Your task to perform on an android device: Search for flights from Sydney to Zurich Image 0: 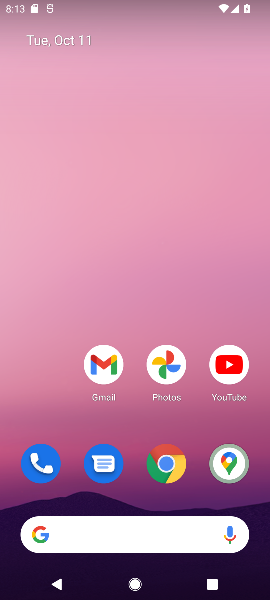
Step 0: drag from (114, 486) to (125, 154)
Your task to perform on an android device: Search for flights from Sydney to Zurich Image 1: 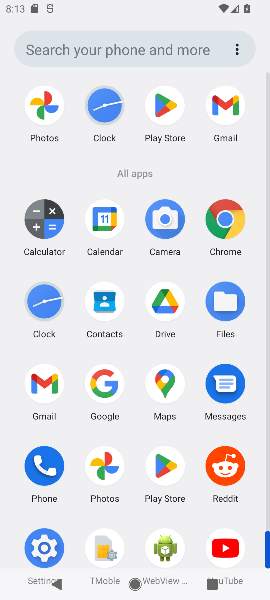
Step 1: drag from (71, 466) to (83, 150)
Your task to perform on an android device: Search for flights from Sydney to Zurich Image 2: 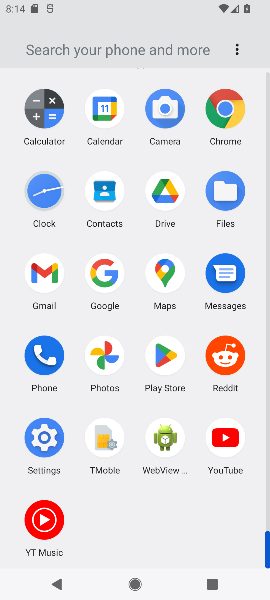
Step 2: click (101, 277)
Your task to perform on an android device: Search for flights from Sydney to Zurich Image 3: 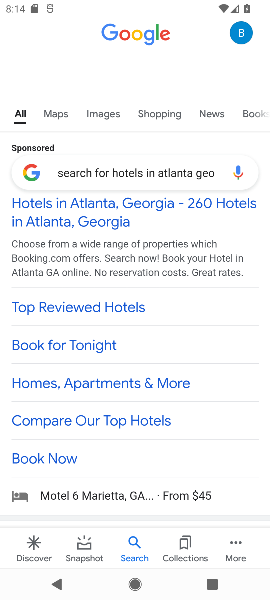
Step 3: click (109, 169)
Your task to perform on an android device: Search for flights from Sydney to Zurich Image 4: 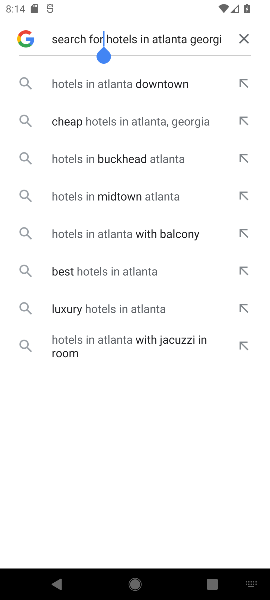
Step 4: click (241, 34)
Your task to perform on an android device: Search for flights from Sydney to Zurich Image 5: 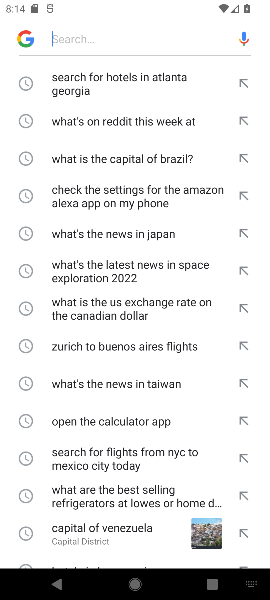
Step 5: click (107, 30)
Your task to perform on an android device: Search for flights from Sydney to Zurich Image 6: 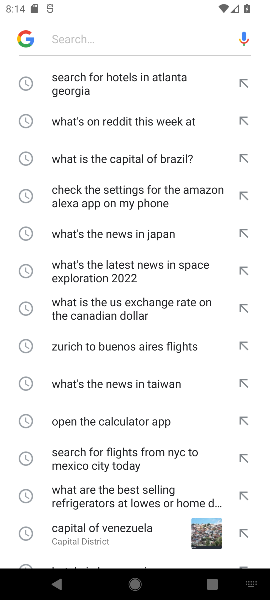
Step 6: type "Search for flights from Sydney to Zurich "
Your task to perform on an android device: Search for flights from Sydney to Zurich Image 7: 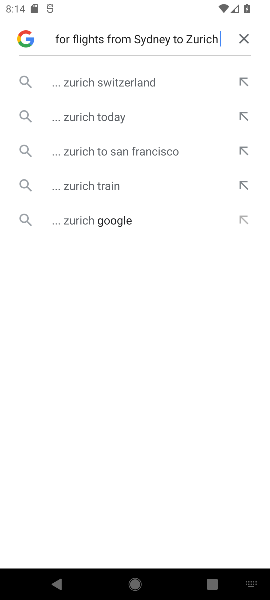
Step 7: click (77, 83)
Your task to perform on an android device: Search for flights from Sydney to Zurich Image 8: 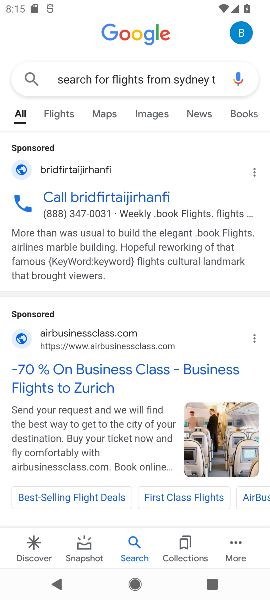
Step 8: click (102, 367)
Your task to perform on an android device: Search for flights from Sydney to Zurich Image 9: 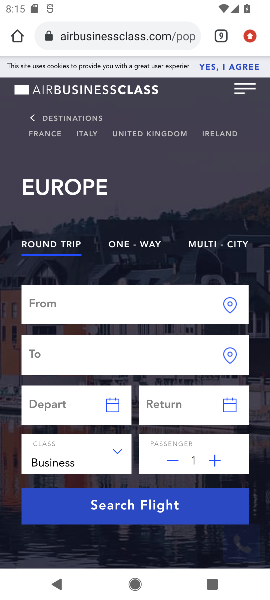
Step 9: press back button
Your task to perform on an android device: Search for flights from Sydney to Zurich Image 10: 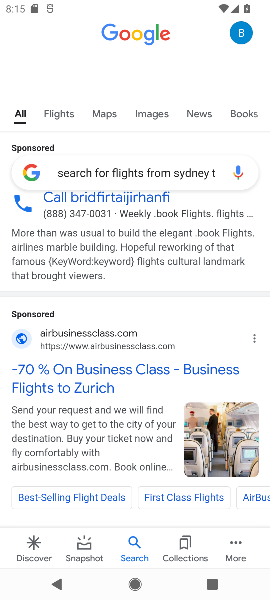
Step 10: click (80, 387)
Your task to perform on an android device: Search for flights from Sydney to Zurich Image 11: 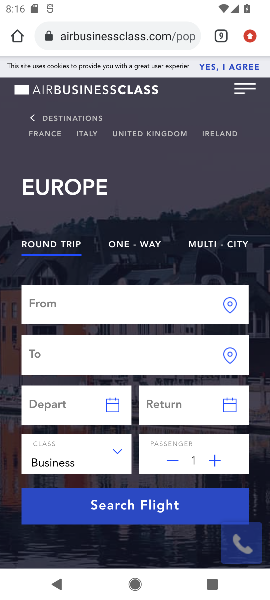
Step 11: click (95, 502)
Your task to perform on an android device: Search for flights from Sydney to Zurich Image 12: 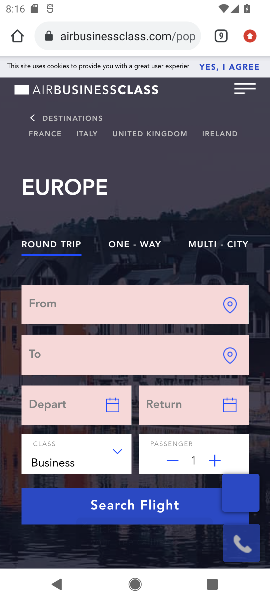
Step 12: task complete